Your task to perform on an android device: Search for Italian restaurants on Maps Image 0: 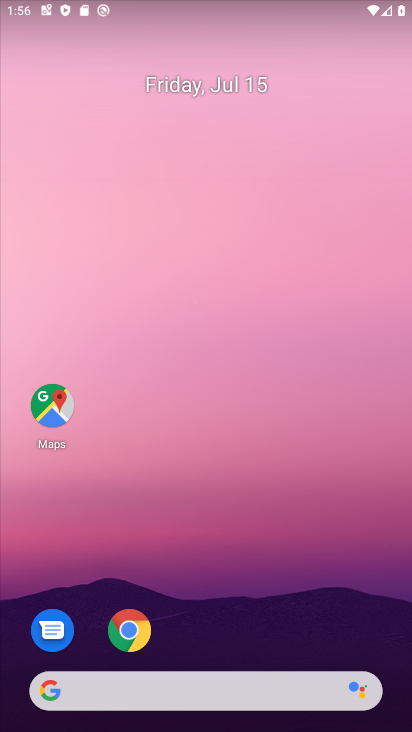
Step 0: click (55, 405)
Your task to perform on an android device: Search for Italian restaurants on Maps Image 1: 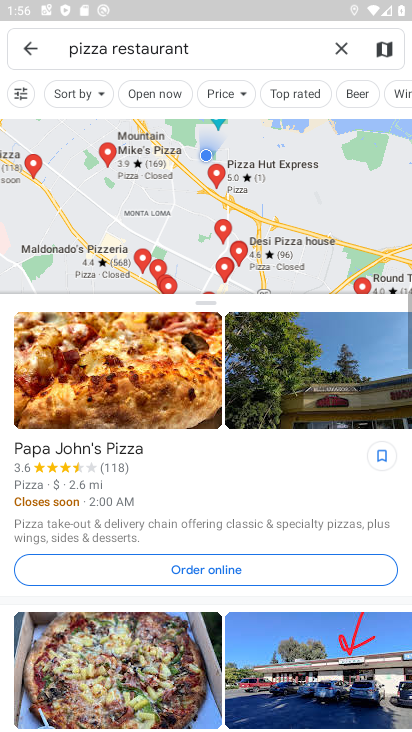
Step 1: click (340, 49)
Your task to perform on an android device: Search for Italian restaurants on Maps Image 2: 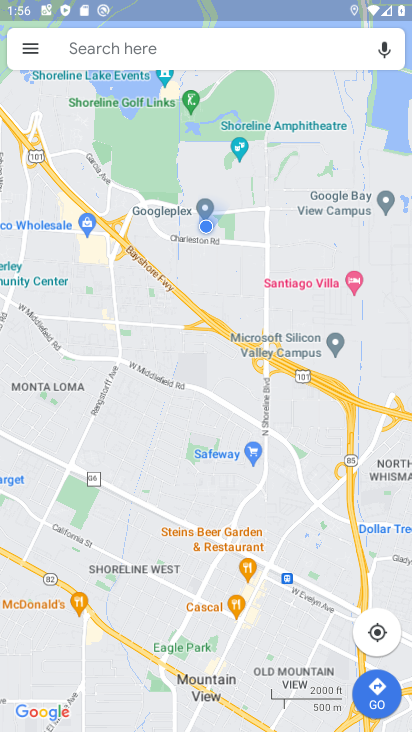
Step 2: click (208, 53)
Your task to perform on an android device: Search for Italian restaurants on Maps Image 3: 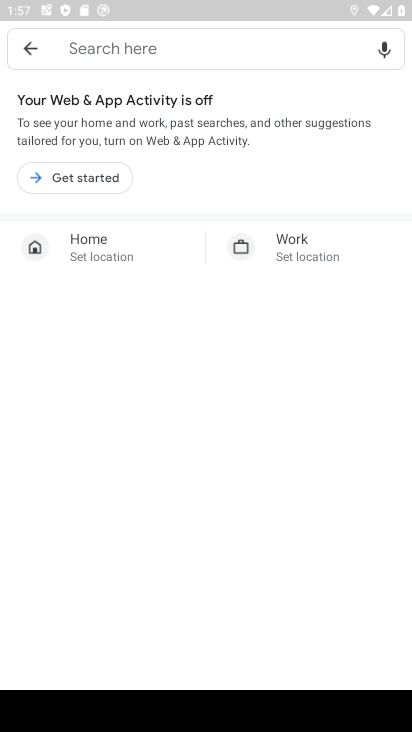
Step 3: type "italian restaurants"
Your task to perform on an android device: Search for Italian restaurants on Maps Image 4: 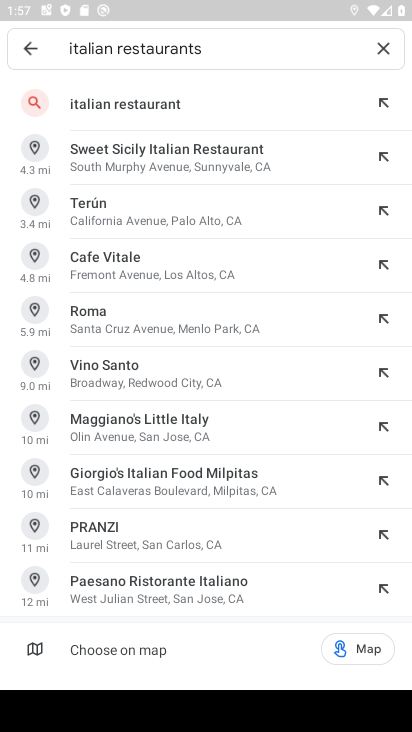
Step 4: click (159, 96)
Your task to perform on an android device: Search for Italian restaurants on Maps Image 5: 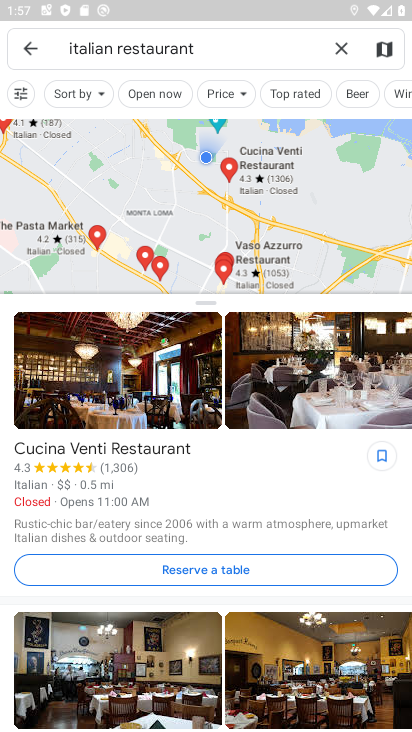
Step 5: task complete